Your task to perform on an android device: Open location settings Image 0: 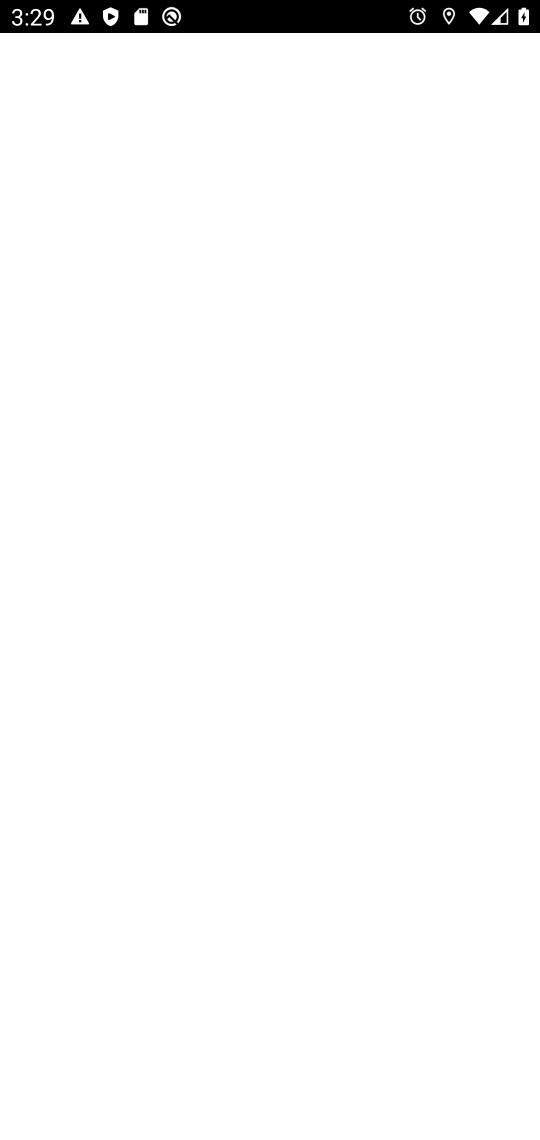
Step 0: press home button
Your task to perform on an android device: Open location settings Image 1: 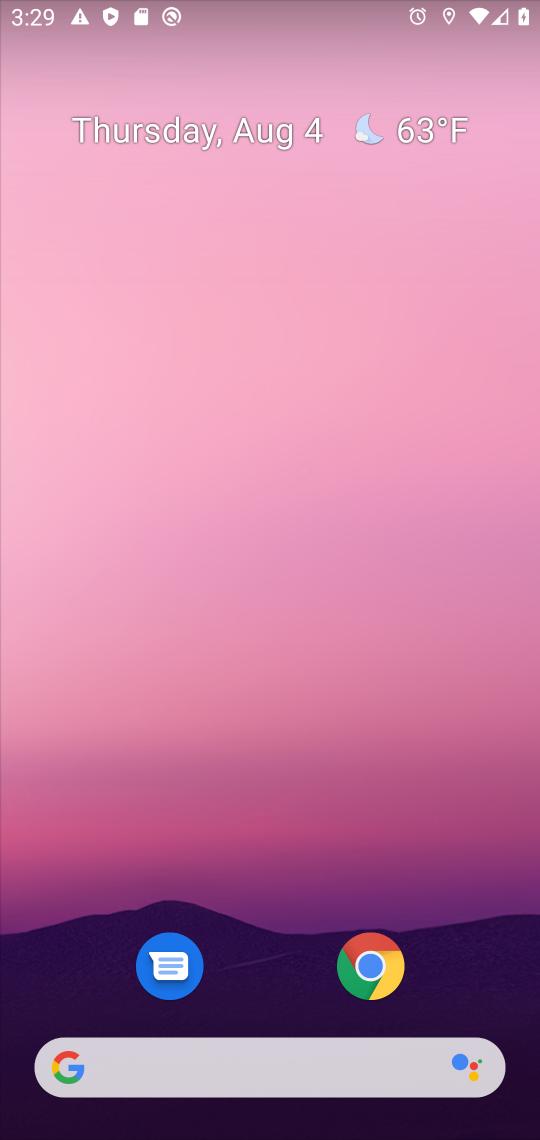
Step 1: drag from (268, 986) to (179, 96)
Your task to perform on an android device: Open location settings Image 2: 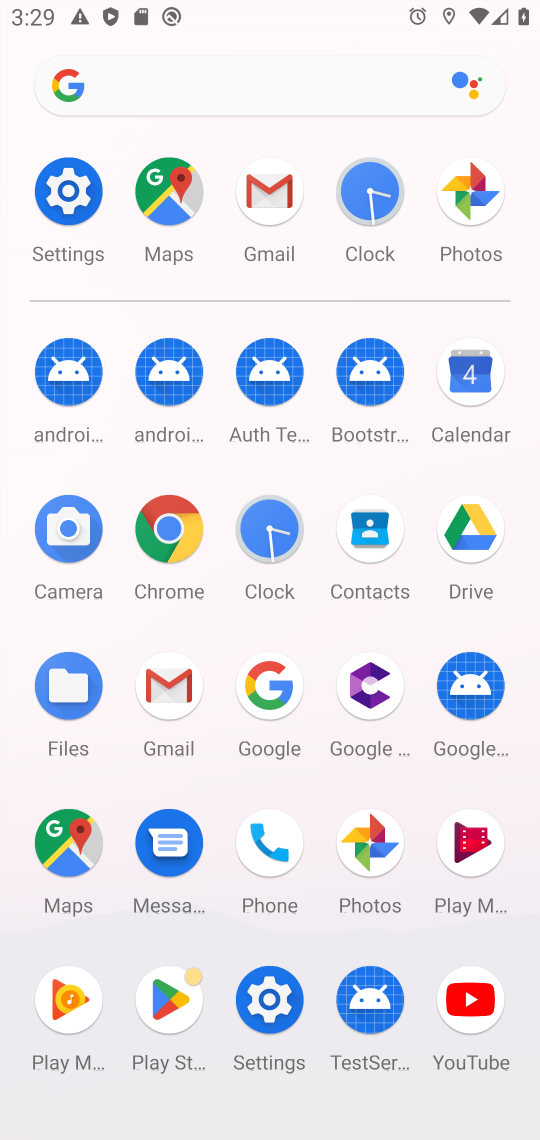
Step 2: click (75, 203)
Your task to perform on an android device: Open location settings Image 3: 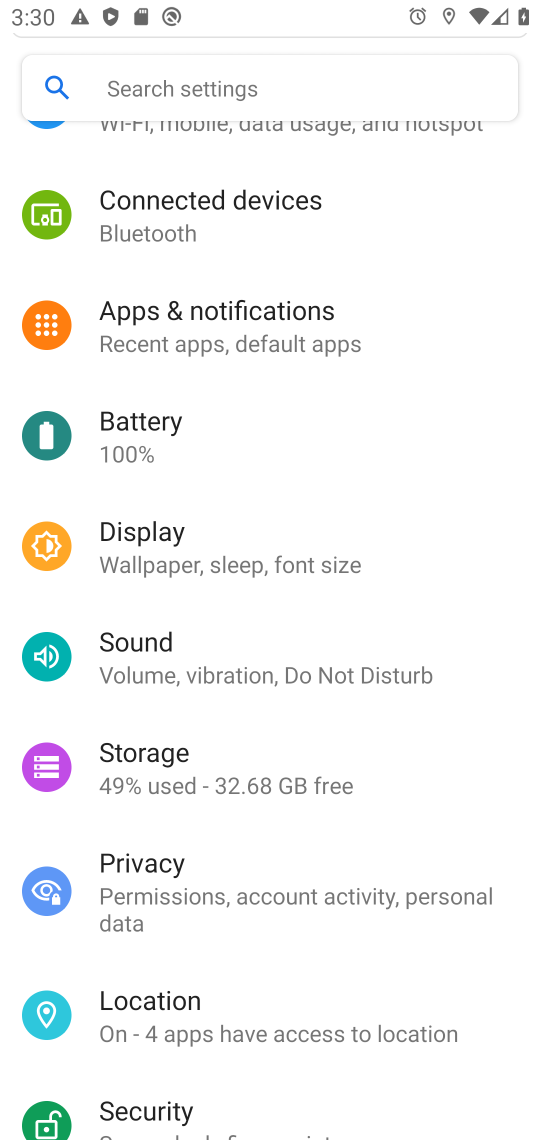
Step 3: click (147, 1003)
Your task to perform on an android device: Open location settings Image 4: 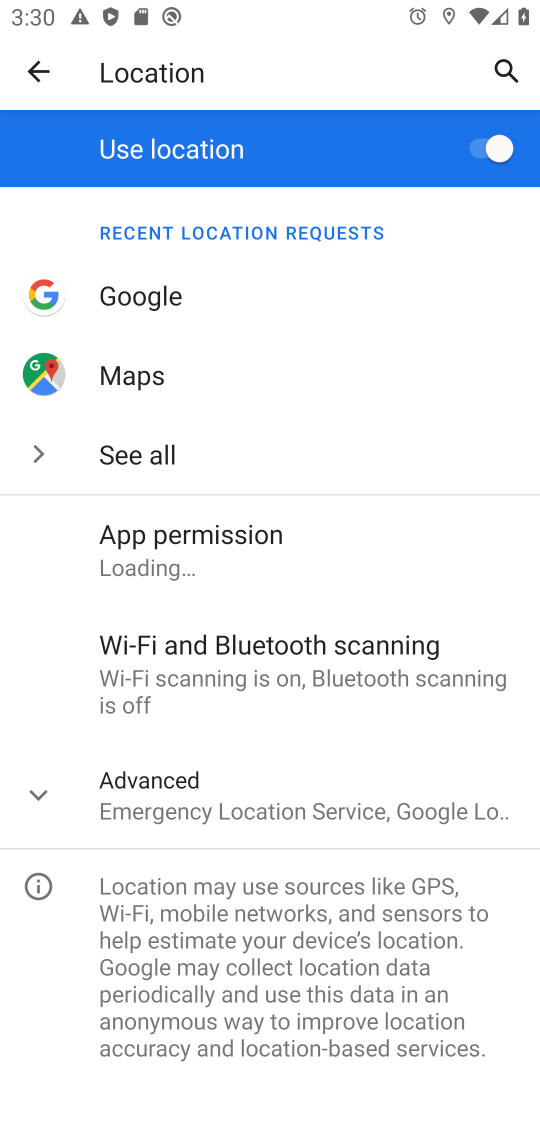
Step 4: task complete